Your task to perform on an android device: snooze an email in the gmail app Image 0: 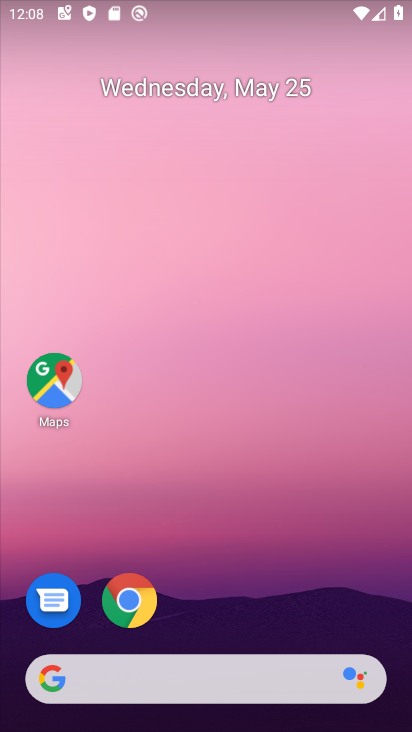
Step 0: drag from (242, 606) to (206, 74)
Your task to perform on an android device: snooze an email in the gmail app Image 1: 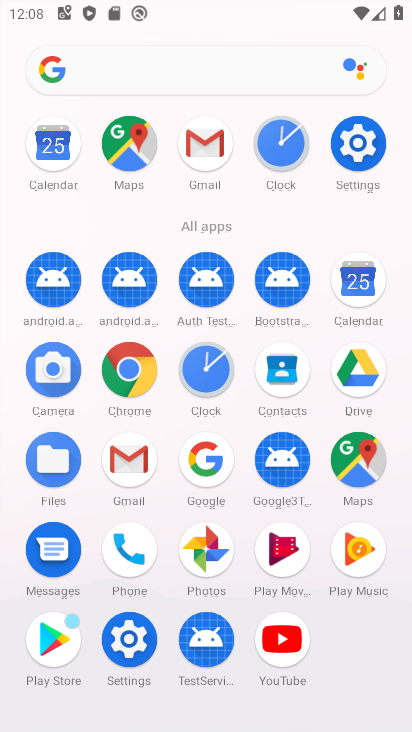
Step 1: click (122, 459)
Your task to perform on an android device: snooze an email in the gmail app Image 2: 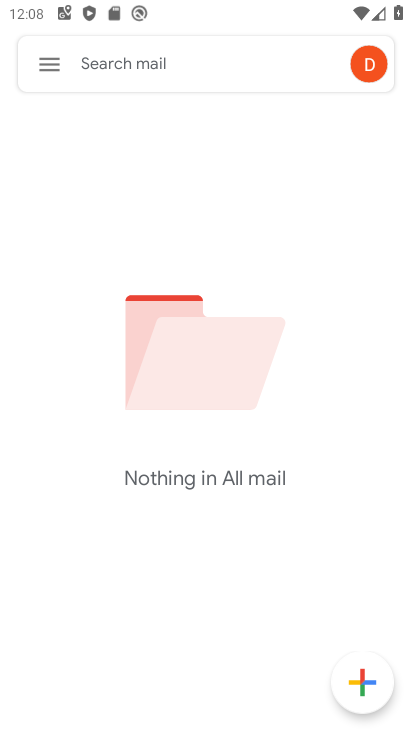
Step 2: task complete